Your task to perform on an android device: Go to Amazon Image 0: 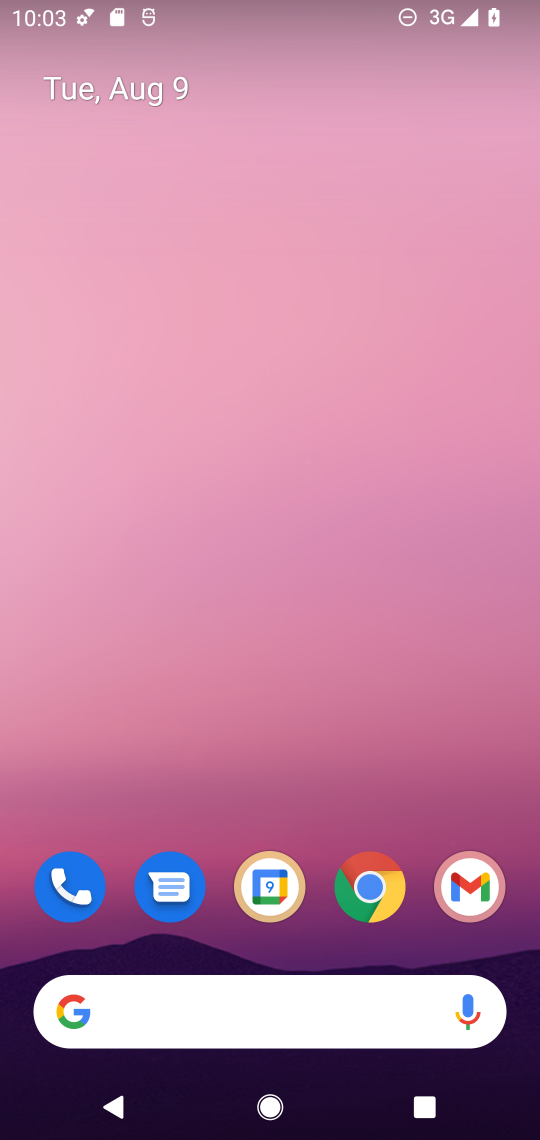
Step 0: click (374, 891)
Your task to perform on an android device: Go to Amazon Image 1: 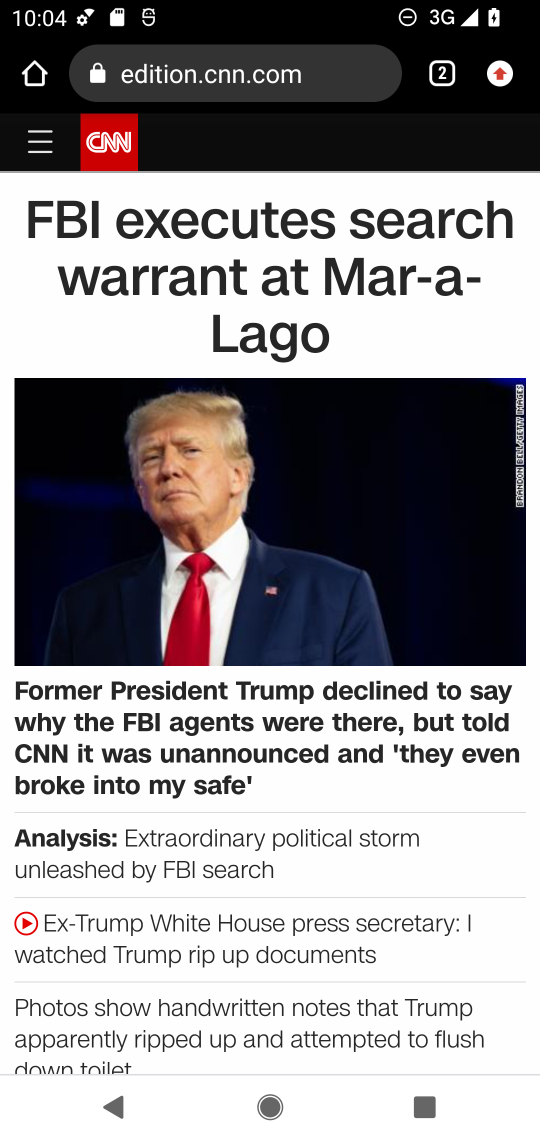
Step 1: click (434, 71)
Your task to perform on an android device: Go to Amazon Image 2: 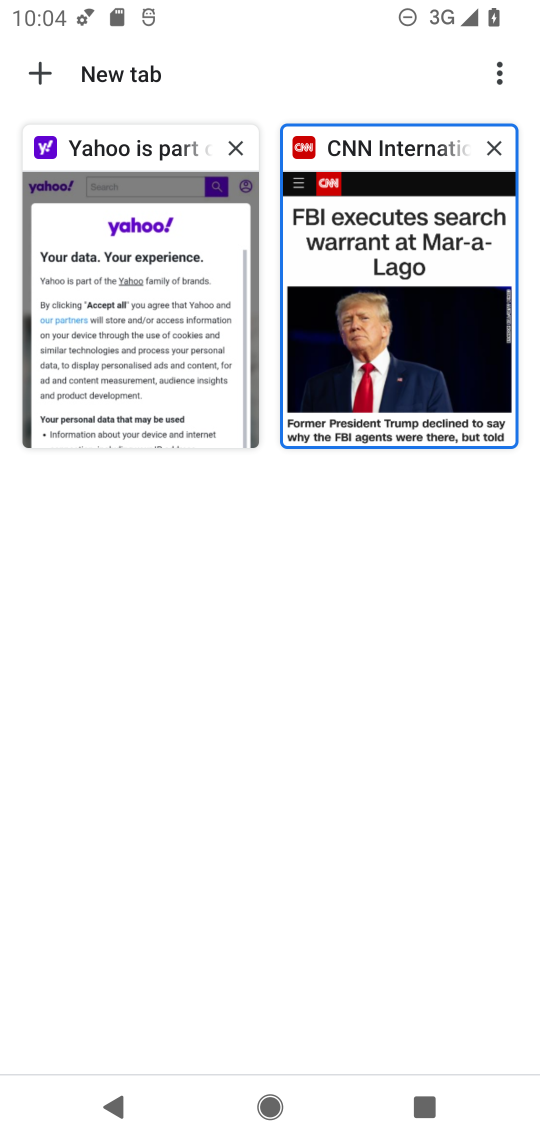
Step 2: click (55, 78)
Your task to perform on an android device: Go to Amazon Image 3: 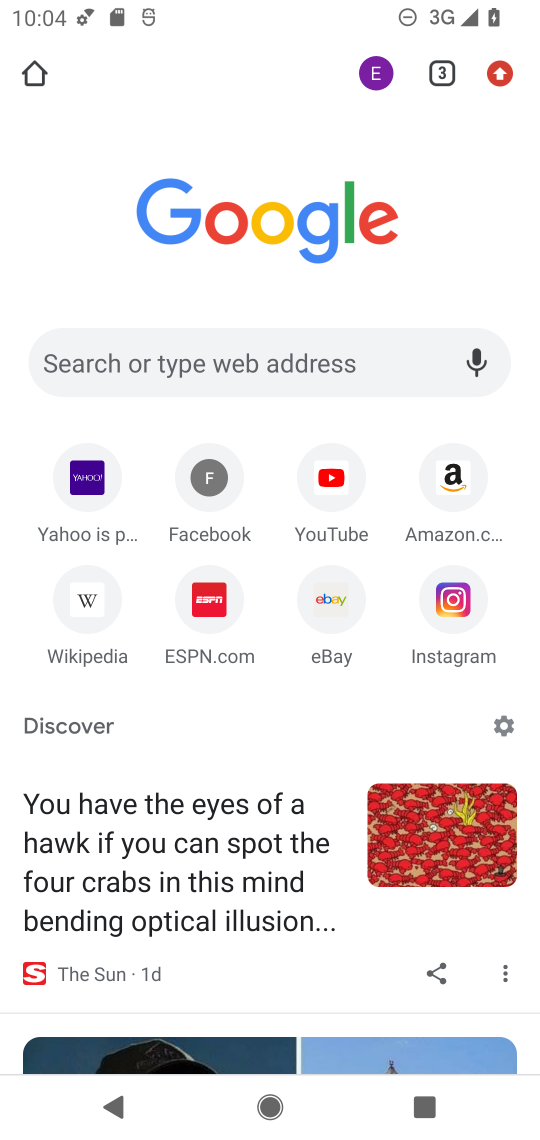
Step 3: click (427, 490)
Your task to perform on an android device: Go to Amazon Image 4: 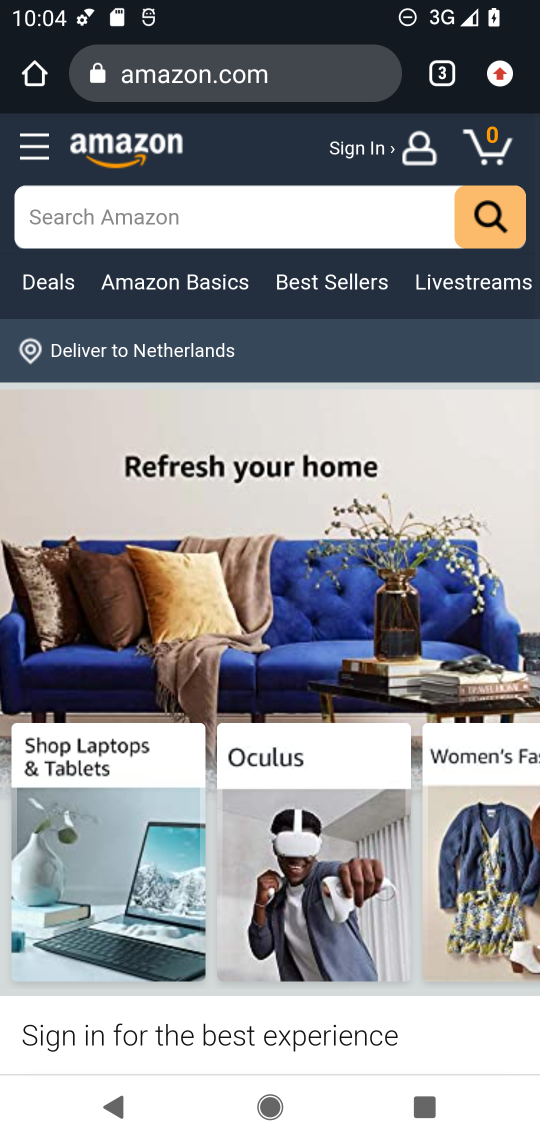
Step 4: task complete